Your task to perform on an android device: add a label to a message in the gmail app Image 0: 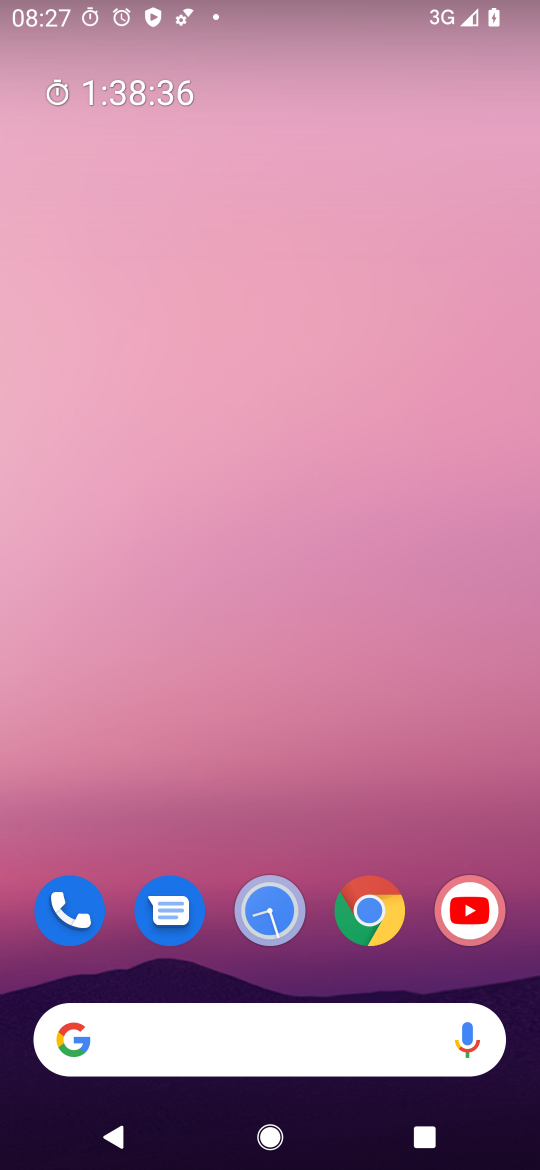
Step 0: drag from (323, 1043) to (336, 8)
Your task to perform on an android device: add a label to a message in the gmail app Image 1: 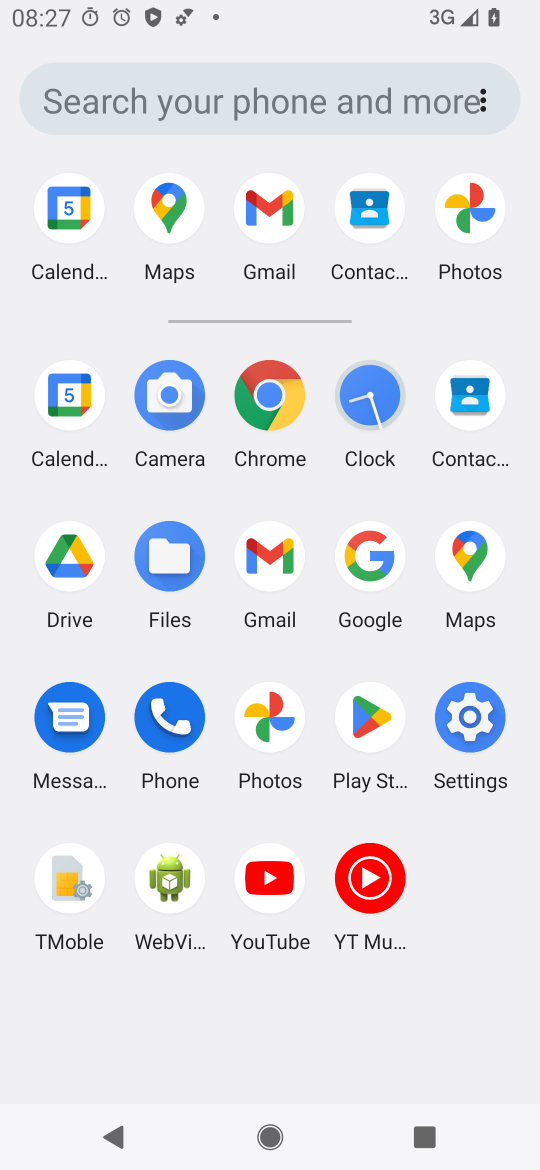
Step 1: click (263, 551)
Your task to perform on an android device: add a label to a message in the gmail app Image 2: 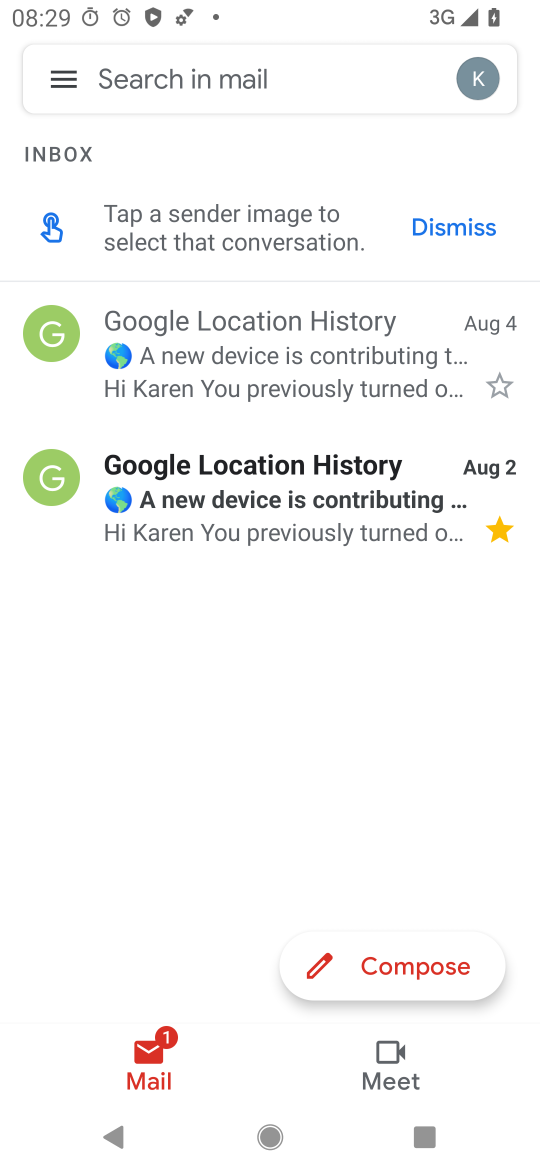
Step 2: click (208, 377)
Your task to perform on an android device: add a label to a message in the gmail app Image 3: 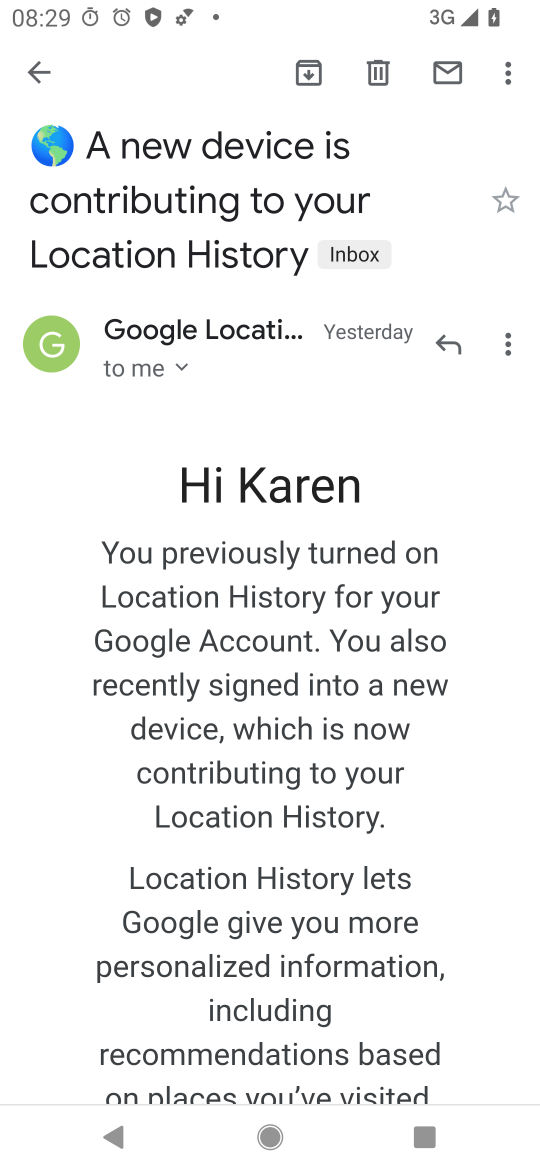
Step 3: click (503, 64)
Your task to perform on an android device: add a label to a message in the gmail app Image 4: 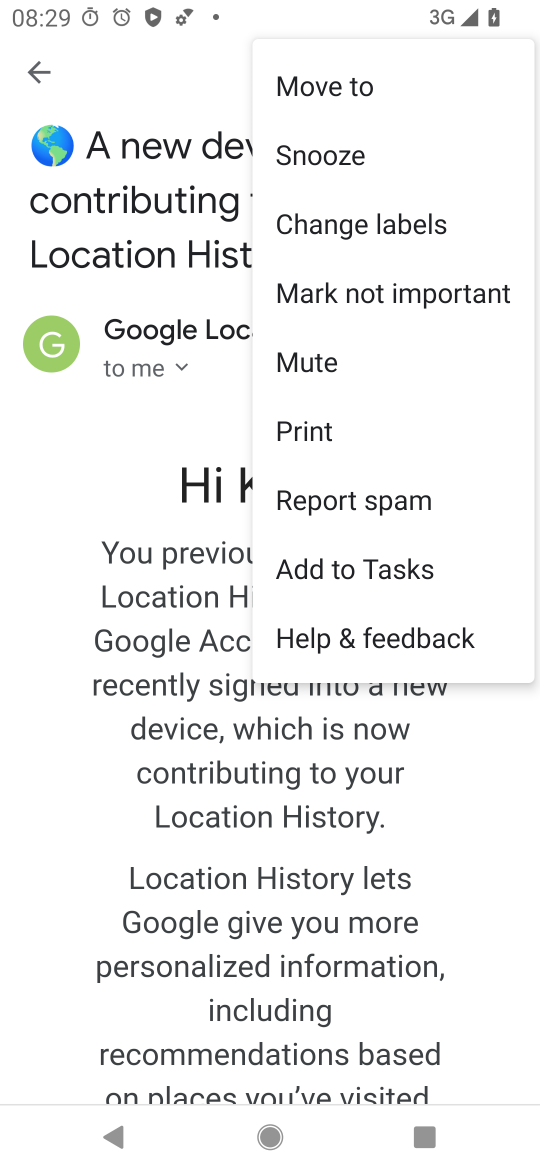
Step 4: click (340, 226)
Your task to perform on an android device: add a label to a message in the gmail app Image 5: 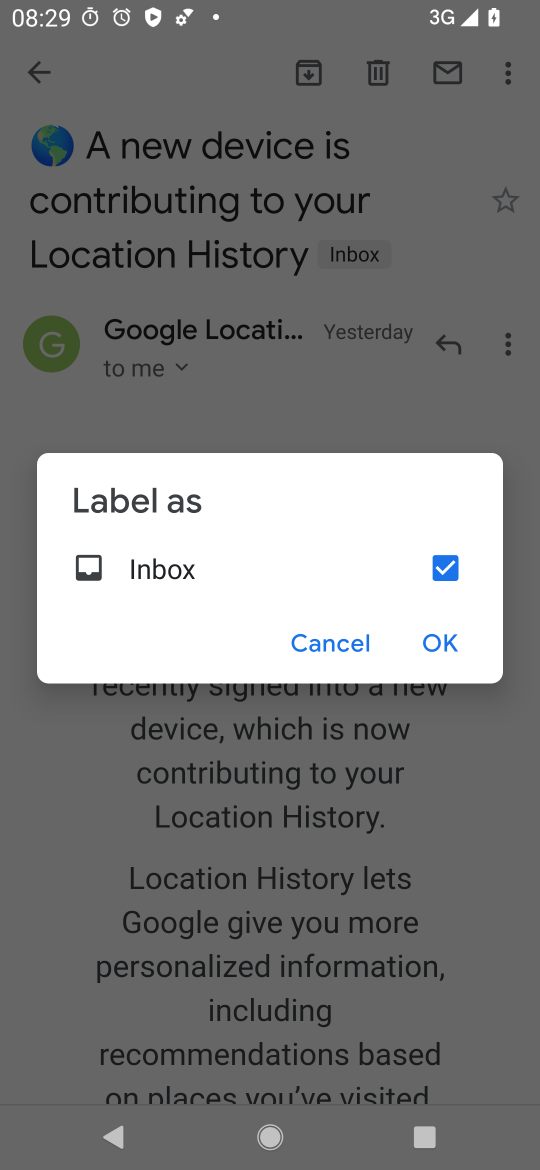
Step 5: click (443, 632)
Your task to perform on an android device: add a label to a message in the gmail app Image 6: 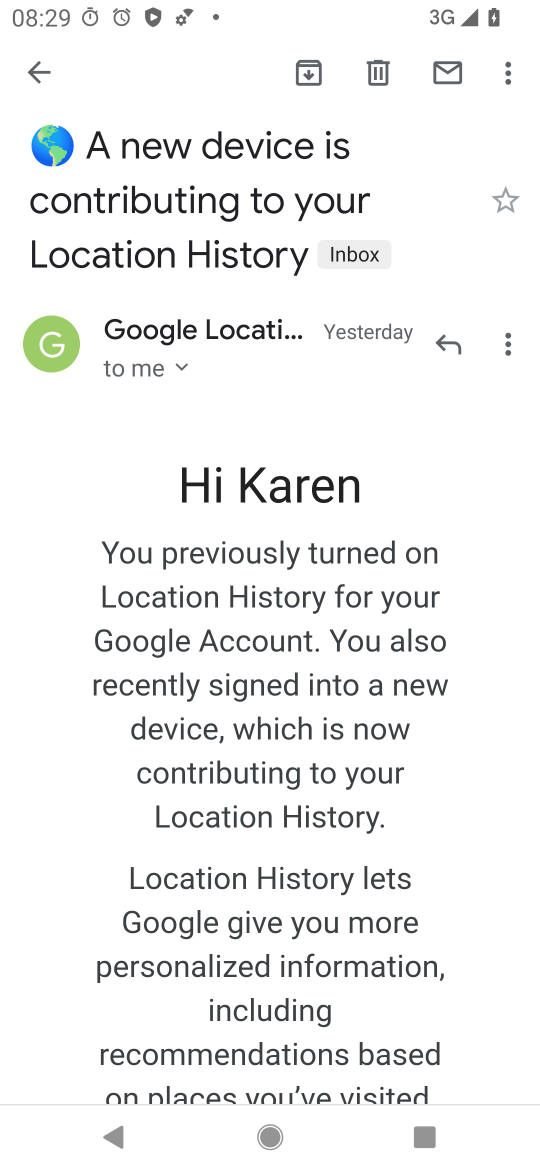
Step 6: task complete